Your task to perform on an android device: Search for vegetarian restaurants on Maps Image 0: 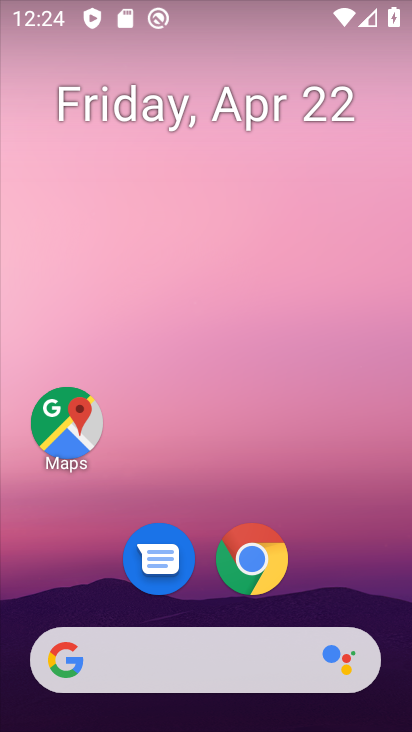
Step 0: drag from (351, 582) to (369, 150)
Your task to perform on an android device: Search for vegetarian restaurants on Maps Image 1: 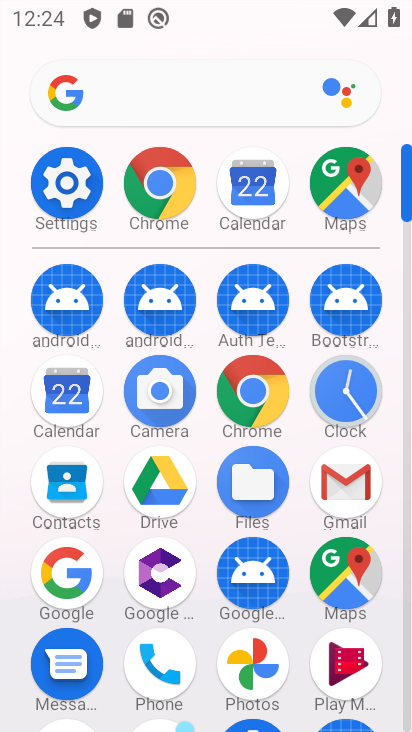
Step 1: click (351, 200)
Your task to perform on an android device: Search for vegetarian restaurants on Maps Image 2: 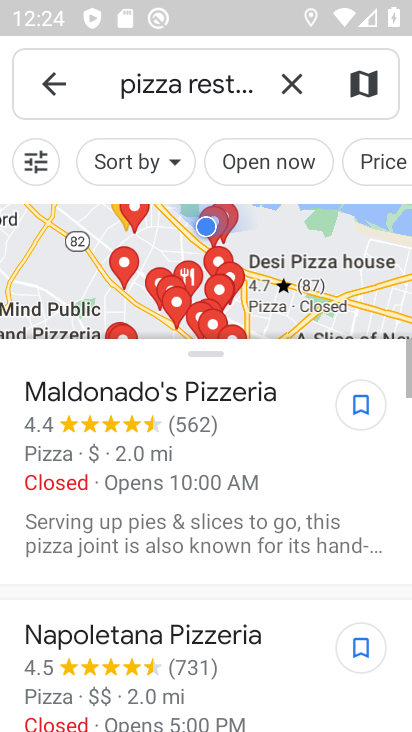
Step 2: click (245, 80)
Your task to perform on an android device: Search for vegetarian restaurants on Maps Image 3: 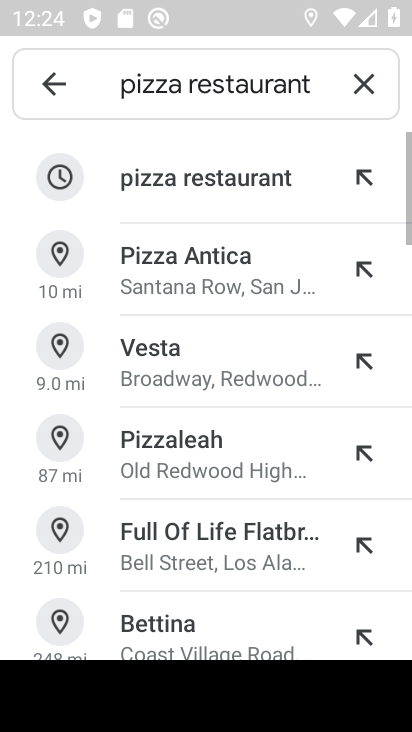
Step 3: click (357, 86)
Your task to perform on an android device: Search for vegetarian restaurants on Maps Image 4: 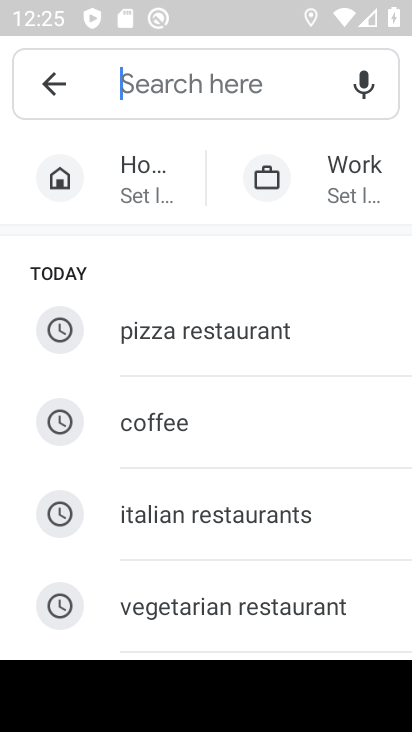
Step 4: type "vegetrain restaurants"
Your task to perform on an android device: Search for vegetarian restaurants on Maps Image 5: 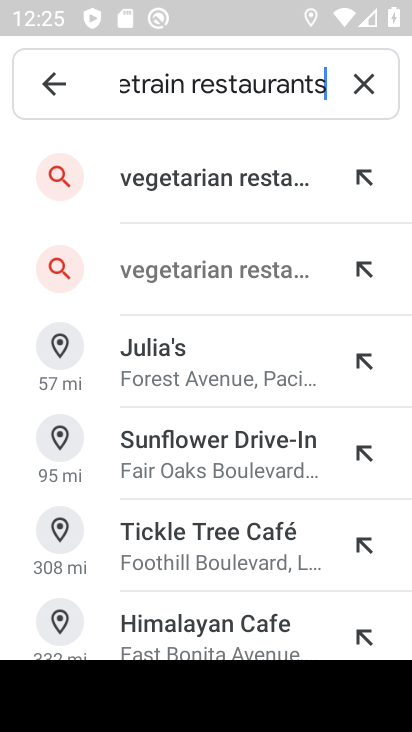
Step 5: click (248, 186)
Your task to perform on an android device: Search for vegetarian restaurants on Maps Image 6: 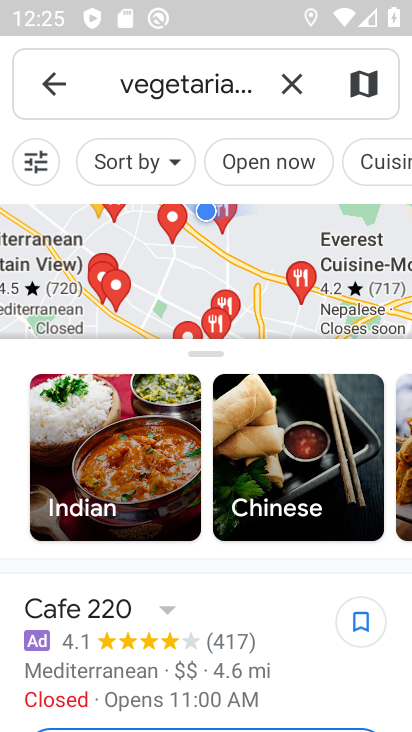
Step 6: task complete